Your task to perform on an android device: Go to location settings Image 0: 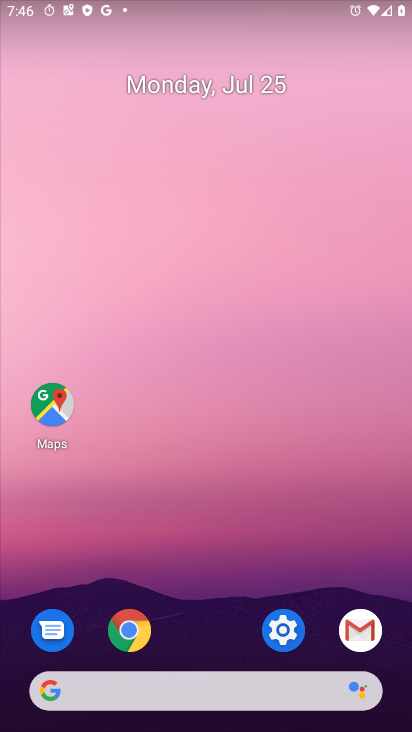
Step 0: click (283, 630)
Your task to perform on an android device: Go to location settings Image 1: 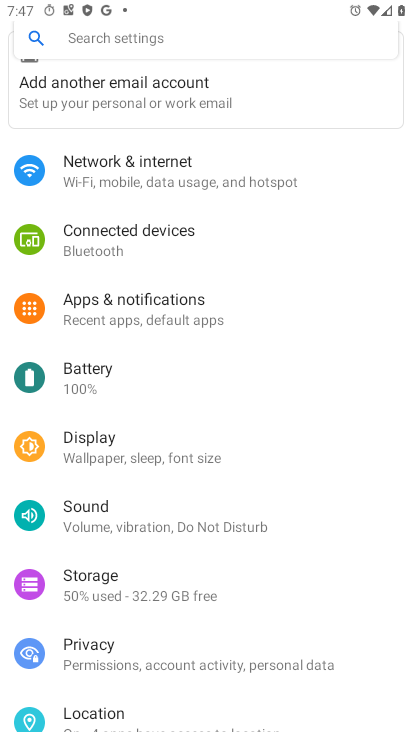
Step 1: click (116, 714)
Your task to perform on an android device: Go to location settings Image 2: 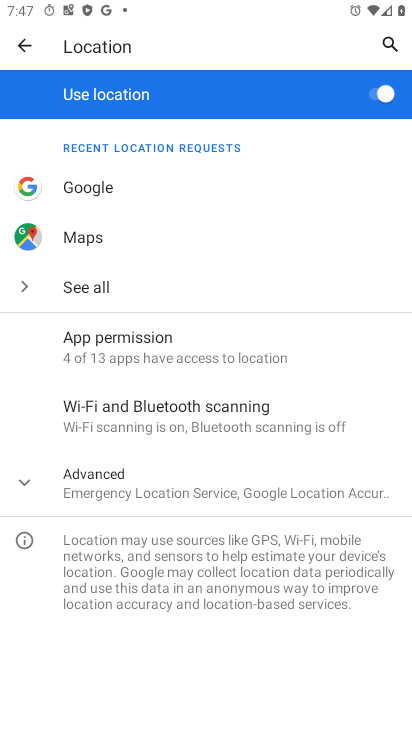
Step 2: task complete